Your task to perform on an android device: turn on location history Image 0: 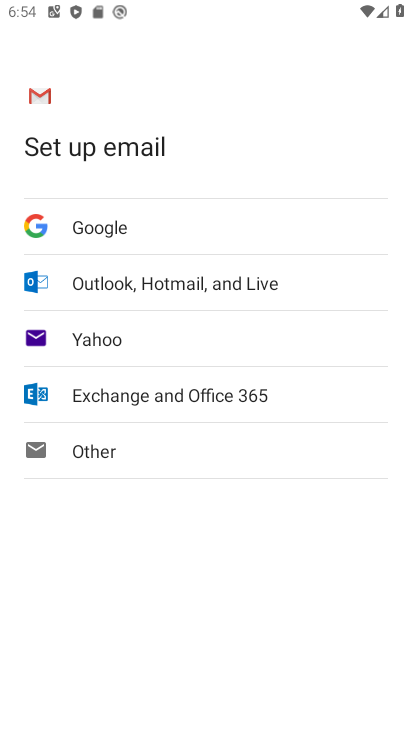
Step 0: press home button
Your task to perform on an android device: turn on location history Image 1: 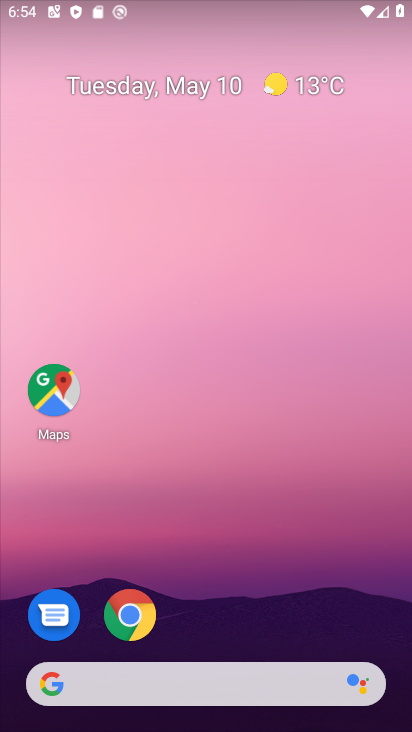
Step 1: drag from (317, 595) to (407, 333)
Your task to perform on an android device: turn on location history Image 2: 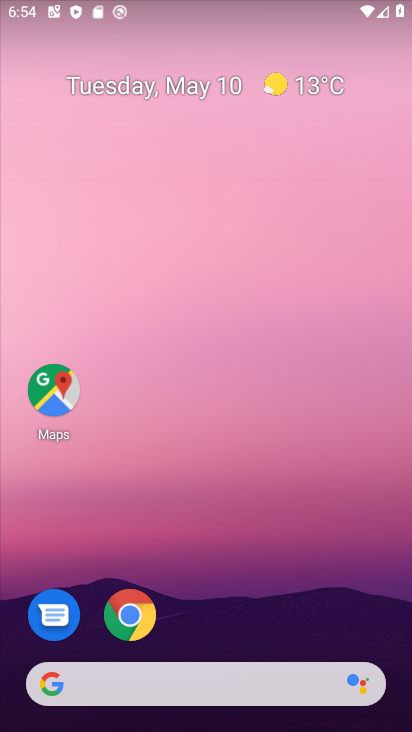
Step 2: drag from (283, 543) to (385, 164)
Your task to perform on an android device: turn on location history Image 3: 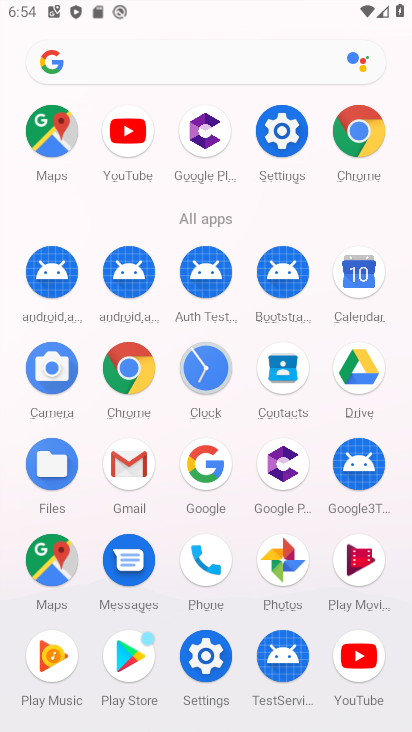
Step 3: click (281, 137)
Your task to perform on an android device: turn on location history Image 4: 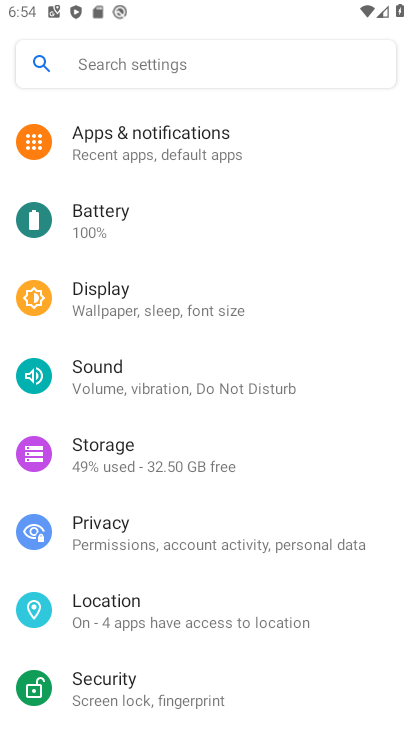
Step 4: click (179, 614)
Your task to perform on an android device: turn on location history Image 5: 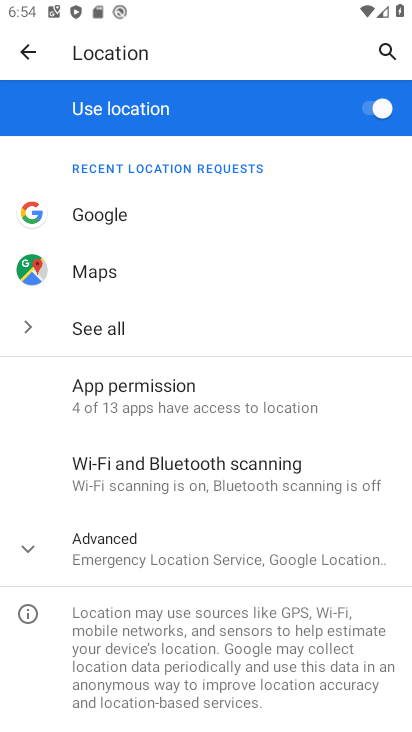
Step 5: drag from (165, 565) to (153, 326)
Your task to perform on an android device: turn on location history Image 6: 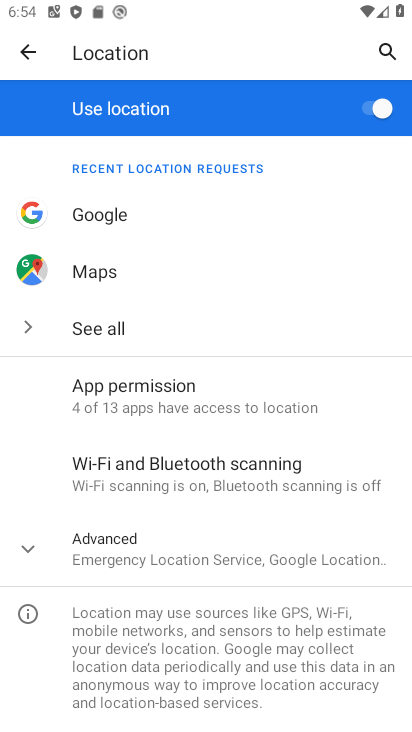
Step 6: click (185, 561)
Your task to perform on an android device: turn on location history Image 7: 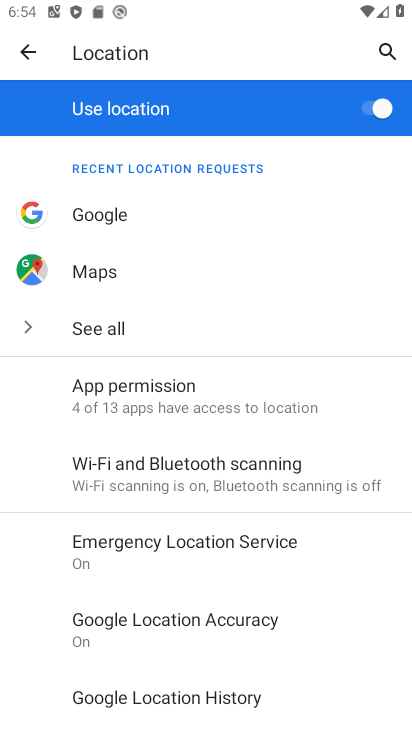
Step 7: drag from (228, 598) to (263, 387)
Your task to perform on an android device: turn on location history Image 8: 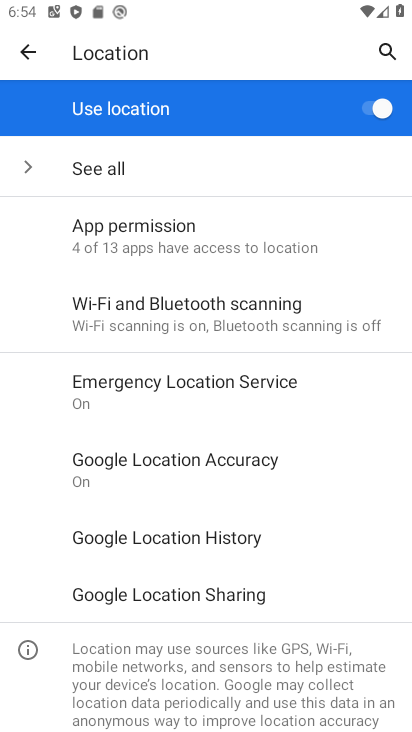
Step 8: click (185, 548)
Your task to perform on an android device: turn on location history Image 9: 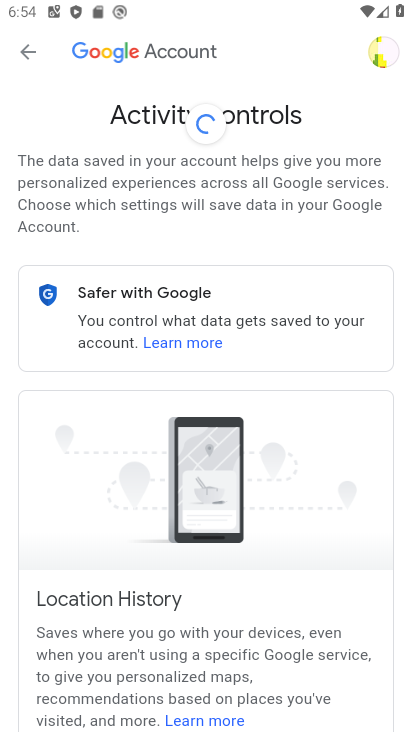
Step 9: drag from (189, 582) to (296, 294)
Your task to perform on an android device: turn on location history Image 10: 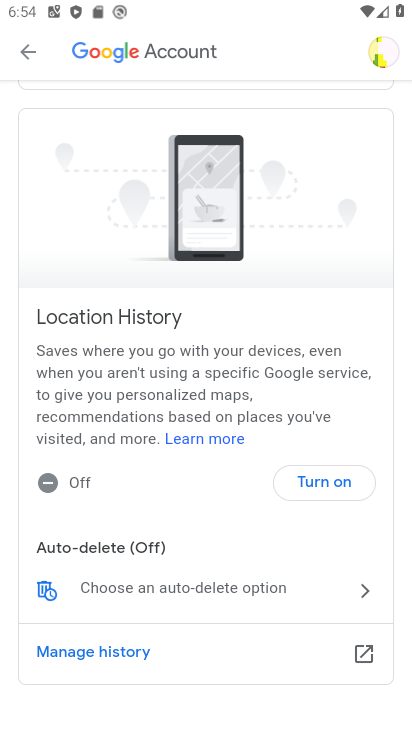
Step 10: click (297, 481)
Your task to perform on an android device: turn on location history Image 11: 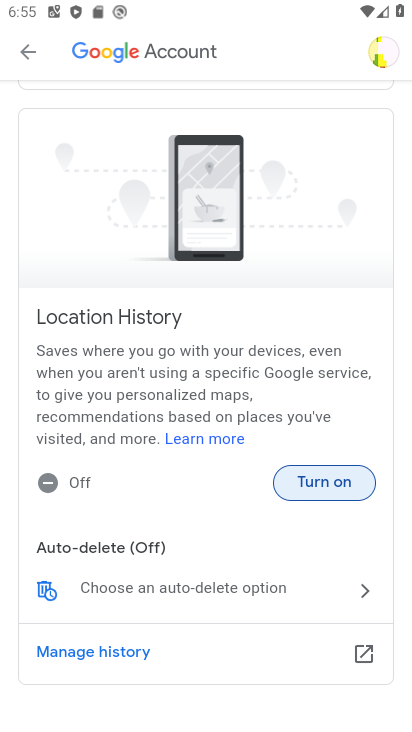
Step 11: click (320, 484)
Your task to perform on an android device: turn on location history Image 12: 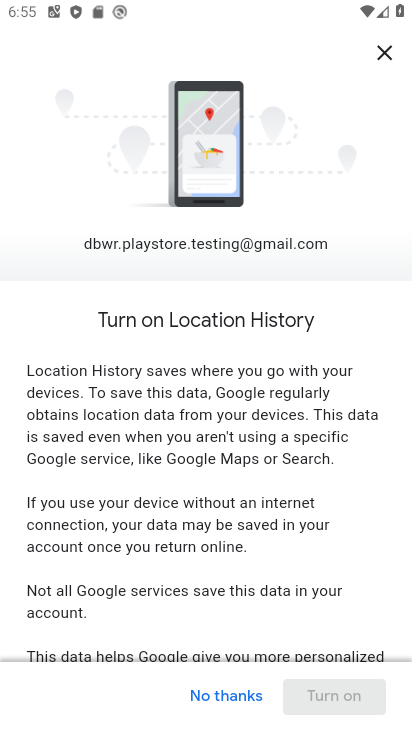
Step 12: drag from (298, 615) to (295, 229)
Your task to perform on an android device: turn on location history Image 13: 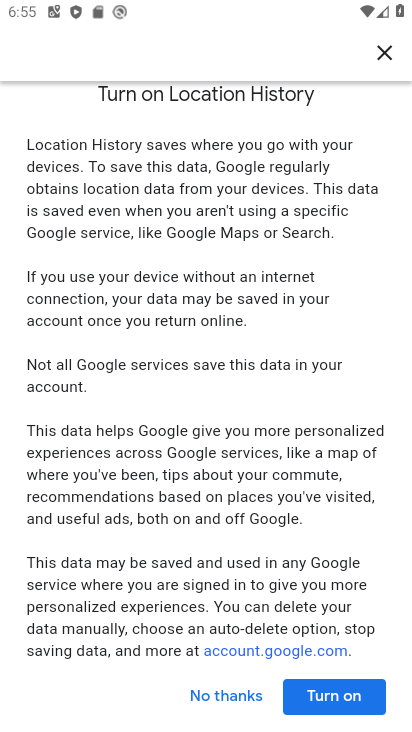
Step 13: click (324, 690)
Your task to perform on an android device: turn on location history Image 14: 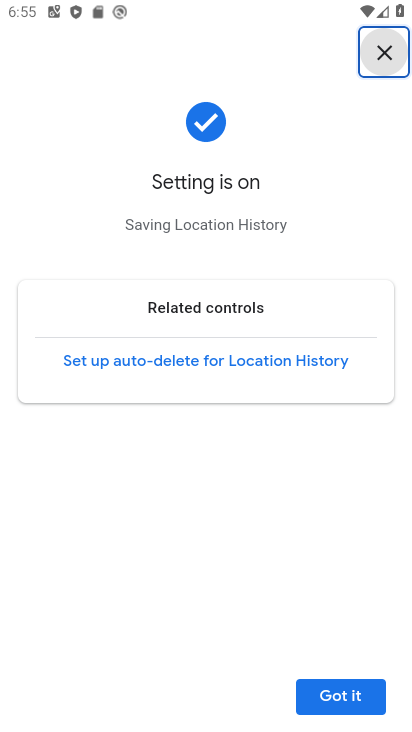
Step 14: click (342, 697)
Your task to perform on an android device: turn on location history Image 15: 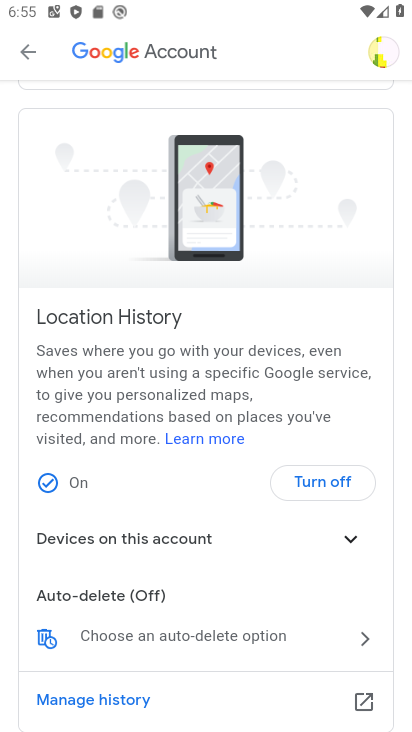
Step 15: task complete